Your task to perform on an android device: Show me productivity apps on the Play Store Image 0: 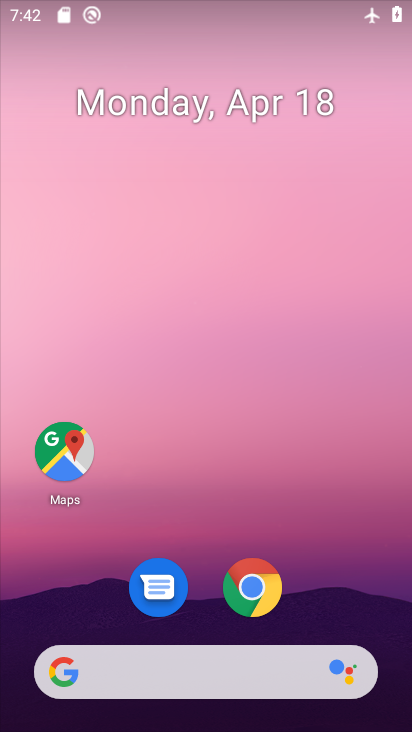
Step 0: drag from (208, 492) to (235, 7)
Your task to perform on an android device: Show me productivity apps on the Play Store Image 1: 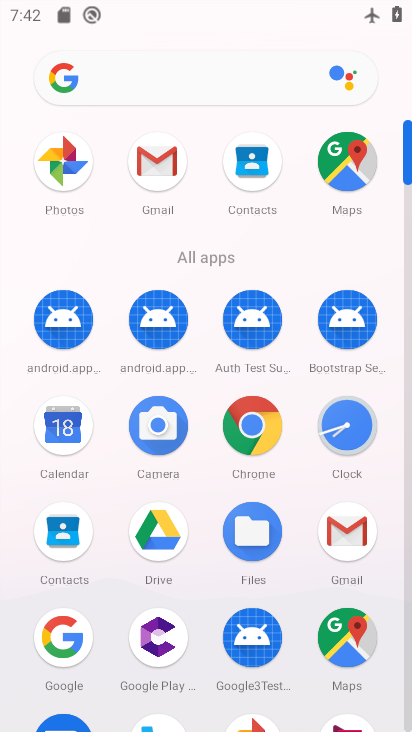
Step 1: drag from (215, 592) to (200, 236)
Your task to perform on an android device: Show me productivity apps on the Play Store Image 2: 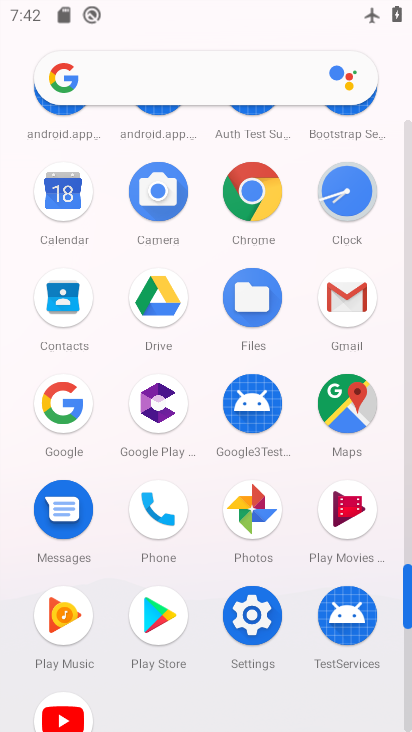
Step 2: click (156, 617)
Your task to perform on an android device: Show me productivity apps on the Play Store Image 3: 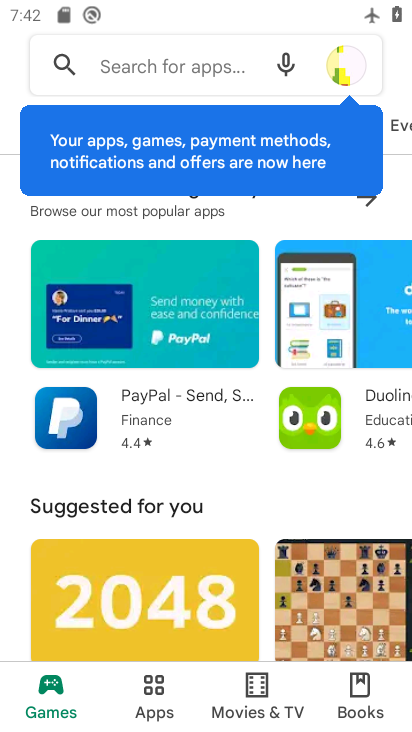
Step 3: click (159, 692)
Your task to perform on an android device: Show me productivity apps on the Play Store Image 4: 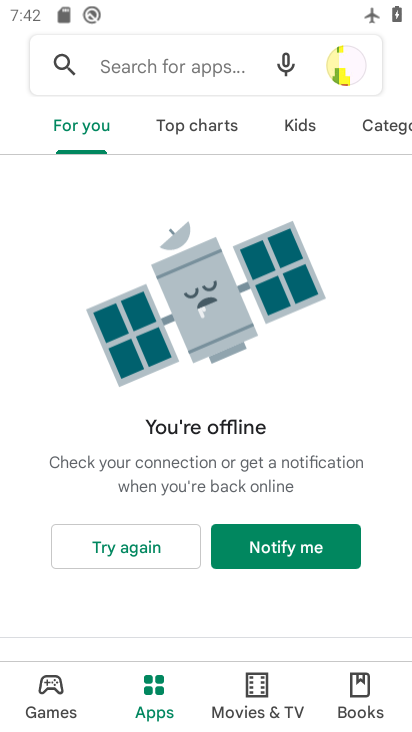
Step 4: drag from (291, 13) to (248, 559)
Your task to perform on an android device: Show me productivity apps on the Play Store Image 5: 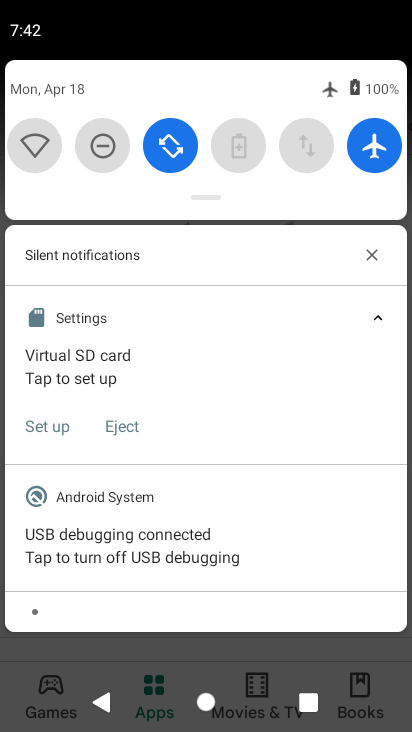
Step 5: click (378, 140)
Your task to perform on an android device: Show me productivity apps on the Play Store Image 6: 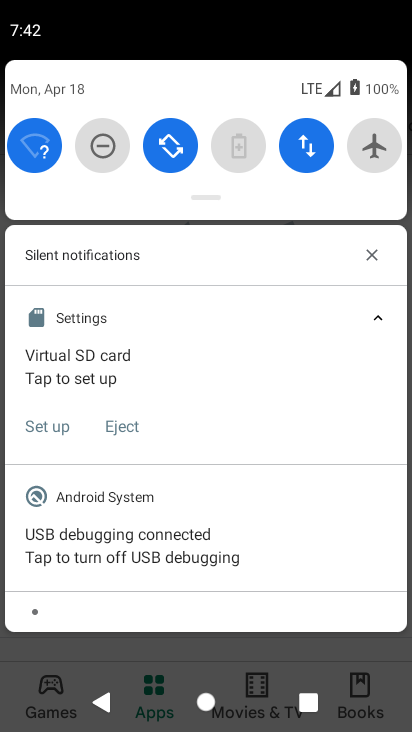
Step 6: task complete